Your task to perform on an android device: toggle javascript in the chrome app Image 0: 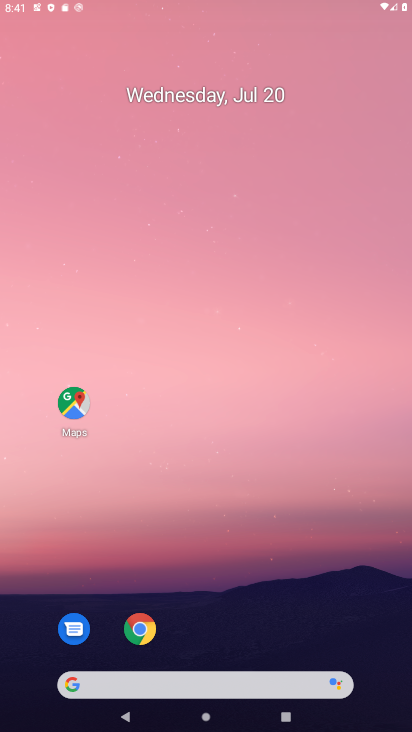
Step 0: drag from (252, 632) to (221, 279)
Your task to perform on an android device: toggle javascript in the chrome app Image 1: 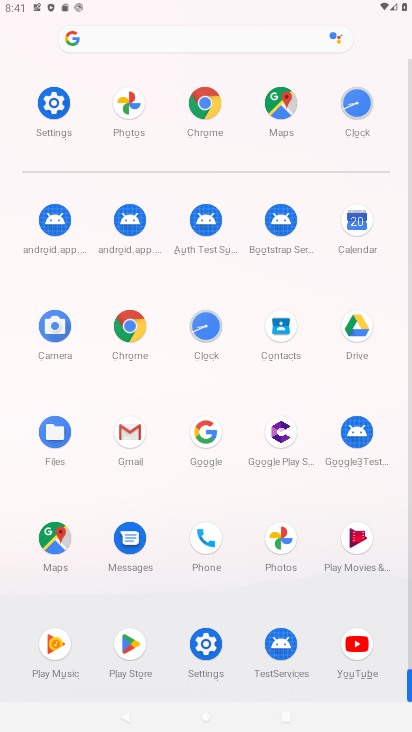
Step 1: click (204, 107)
Your task to perform on an android device: toggle javascript in the chrome app Image 2: 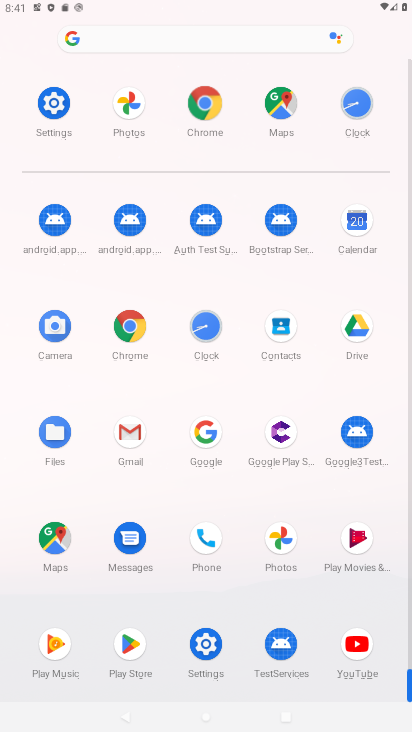
Step 2: click (207, 102)
Your task to perform on an android device: toggle javascript in the chrome app Image 3: 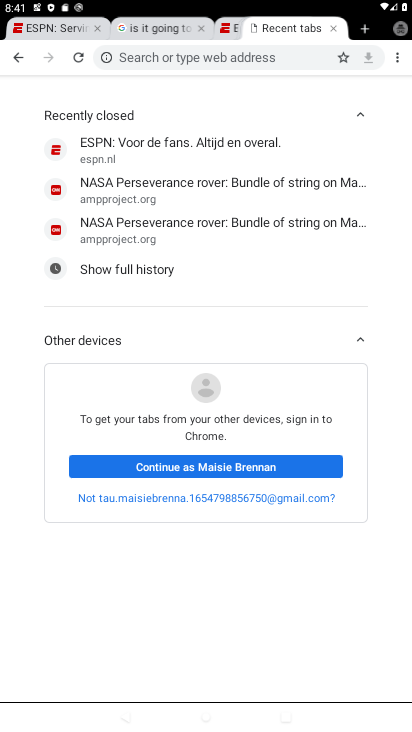
Step 3: drag from (396, 57) to (270, 258)
Your task to perform on an android device: toggle javascript in the chrome app Image 4: 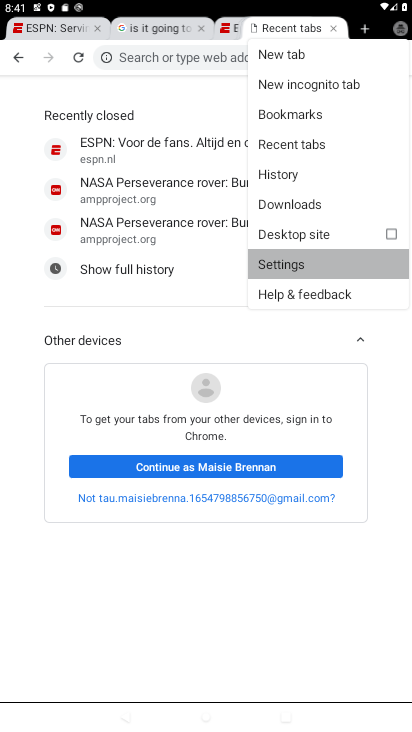
Step 4: click (270, 258)
Your task to perform on an android device: toggle javascript in the chrome app Image 5: 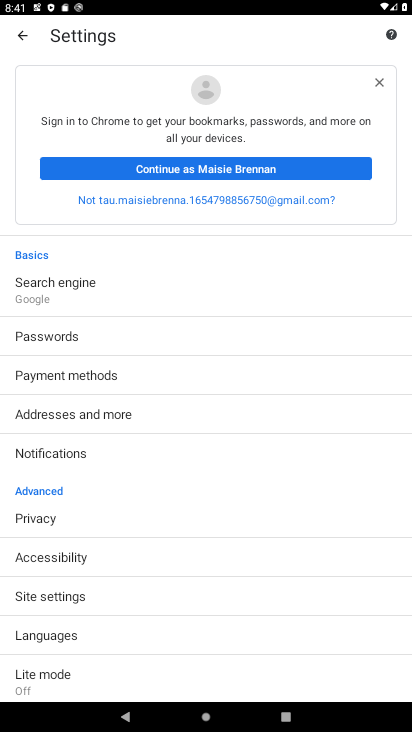
Step 5: drag from (101, 613) to (92, 271)
Your task to perform on an android device: toggle javascript in the chrome app Image 6: 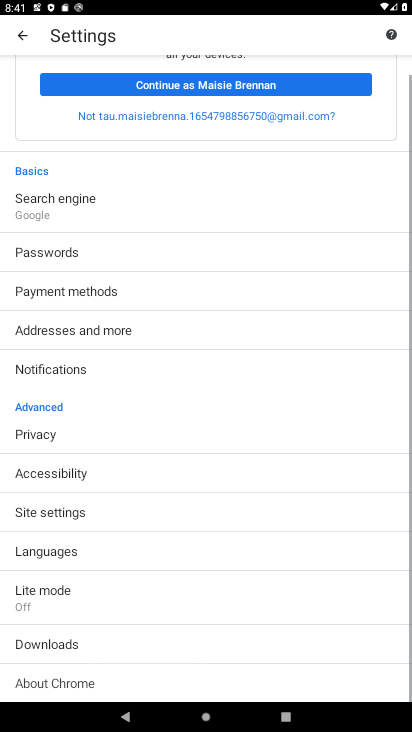
Step 6: drag from (115, 564) to (145, 328)
Your task to perform on an android device: toggle javascript in the chrome app Image 7: 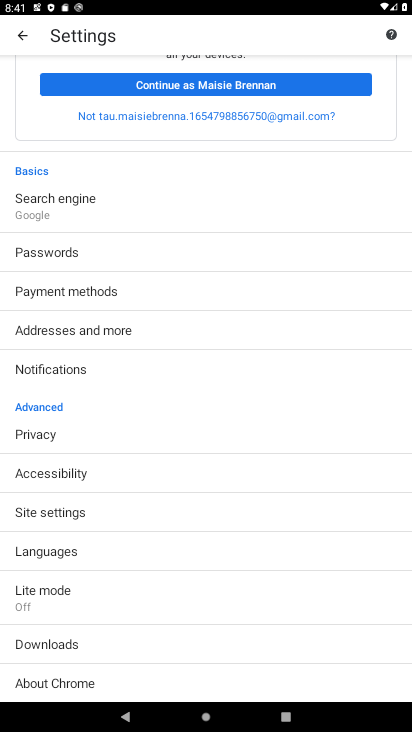
Step 7: click (36, 509)
Your task to perform on an android device: toggle javascript in the chrome app Image 8: 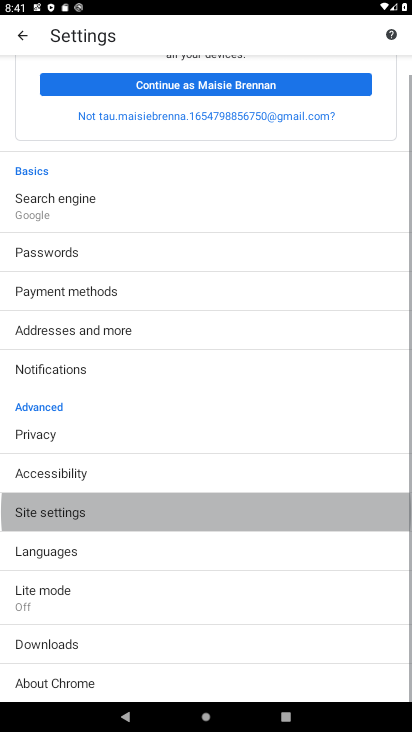
Step 8: click (39, 505)
Your task to perform on an android device: toggle javascript in the chrome app Image 9: 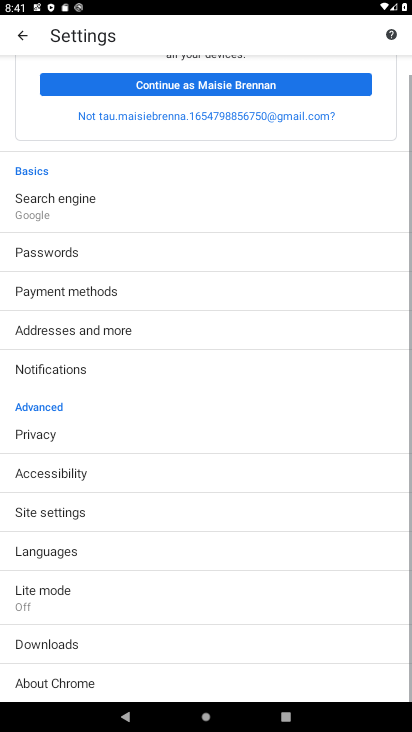
Step 9: click (40, 506)
Your task to perform on an android device: toggle javascript in the chrome app Image 10: 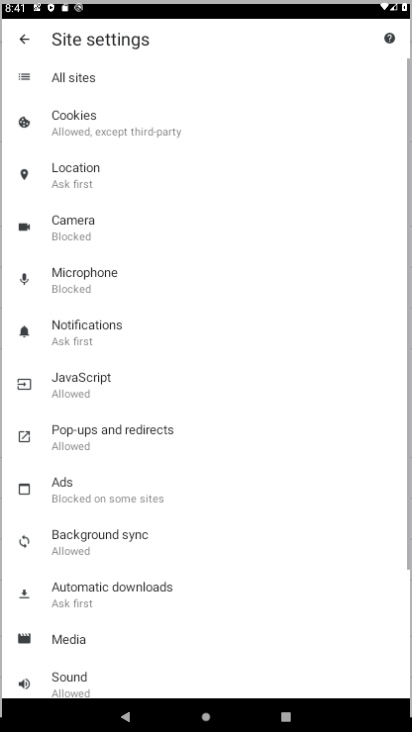
Step 10: click (41, 507)
Your task to perform on an android device: toggle javascript in the chrome app Image 11: 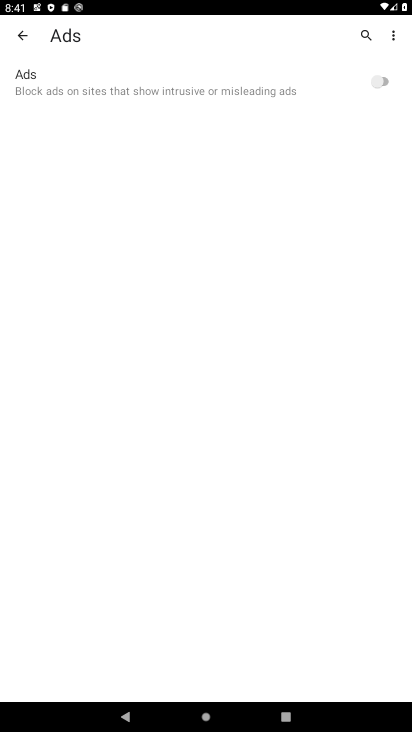
Step 11: click (15, 28)
Your task to perform on an android device: toggle javascript in the chrome app Image 12: 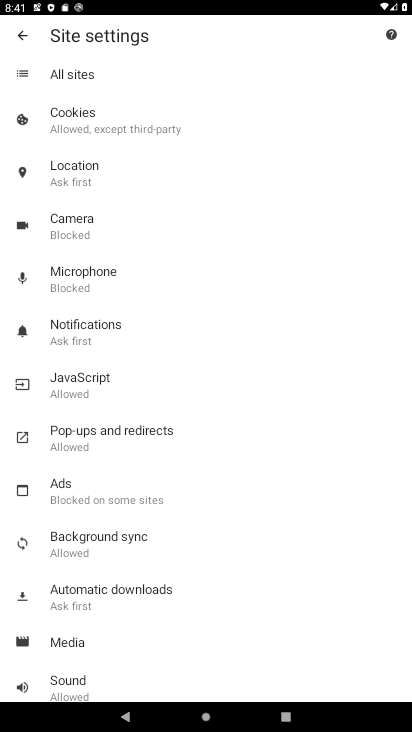
Step 12: click (83, 386)
Your task to perform on an android device: toggle javascript in the chrome app Image 13: 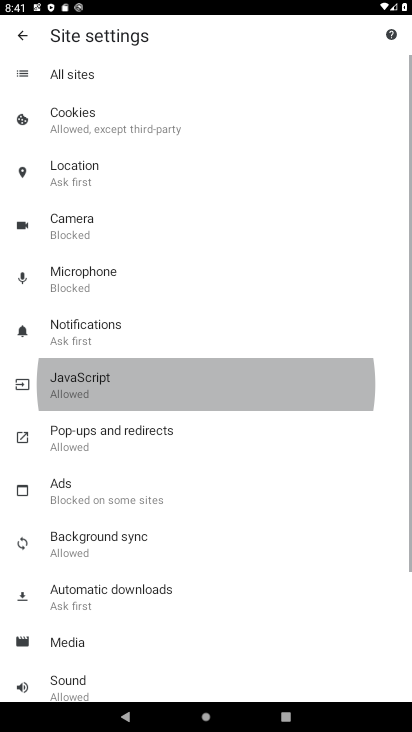
Step 13: click (82, 386)
Your task to perform on an android device: toggle javascript in the chrome app Image 14: 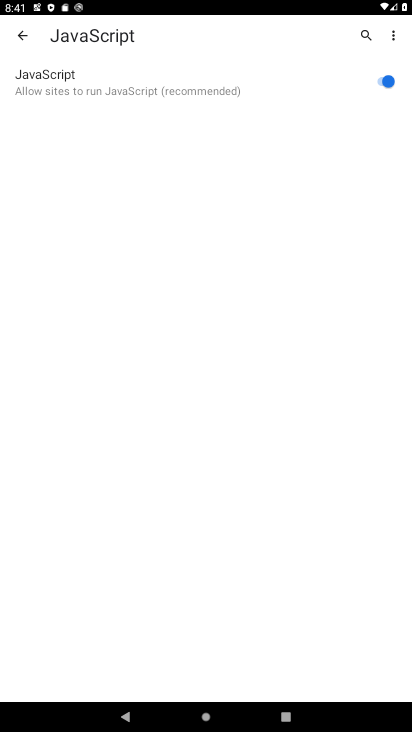
Step 14: task complete